Your task to perform on an android device: Open settings Image 0: 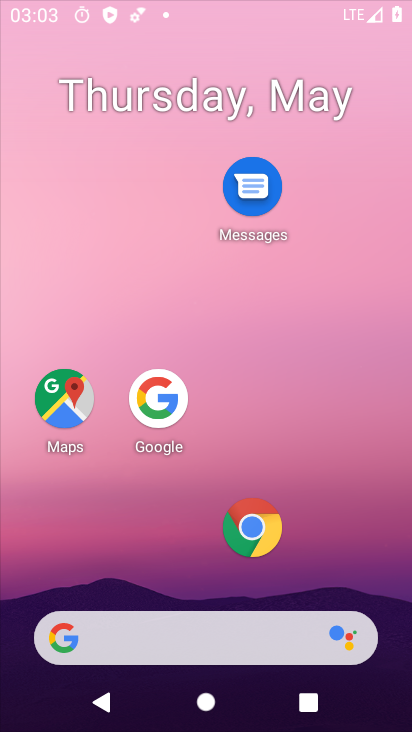
Step 0: click (272, 212)
Your task to perform on an android device: Open settings Image 1: 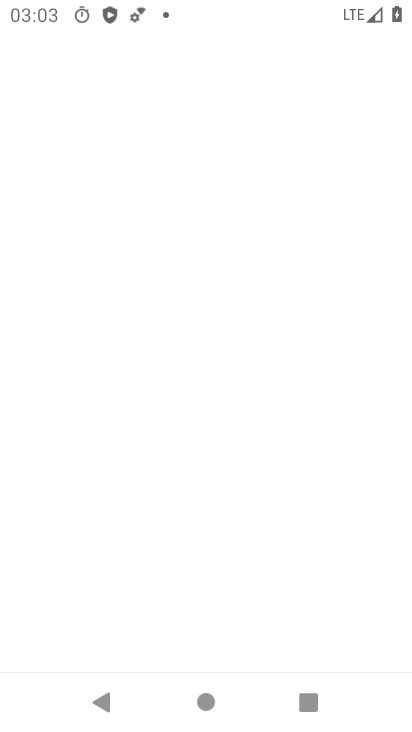
Step 1: press home button
Your task to perform on an android device: Open settings Image 2: 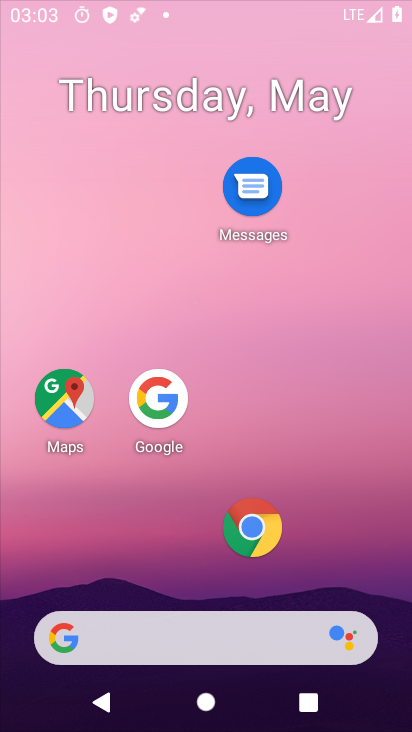
Step 2: drag from (197, 594) to (170, 102)
Your task to perform on an android device: Open settings Image 3: 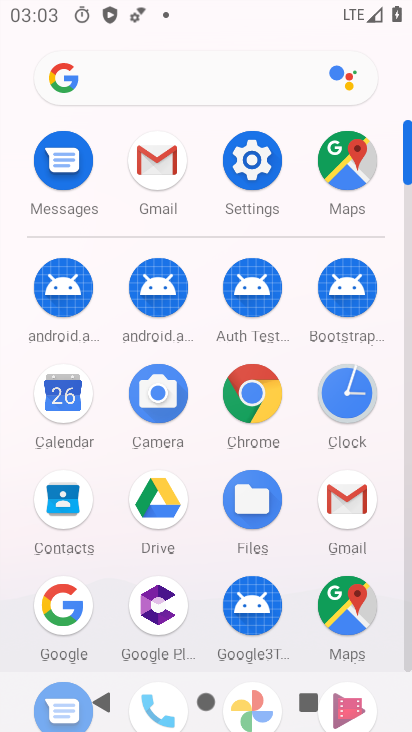
Step 3: click (239, 123)
Your task to perform on an android device: Open settings Image 4: 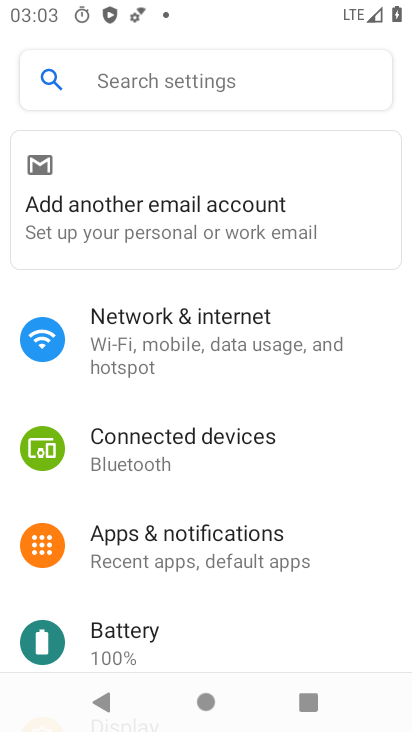
Step 4: task complete